Your task to perform on an android device: open a new tab in the chrome app Image 0: 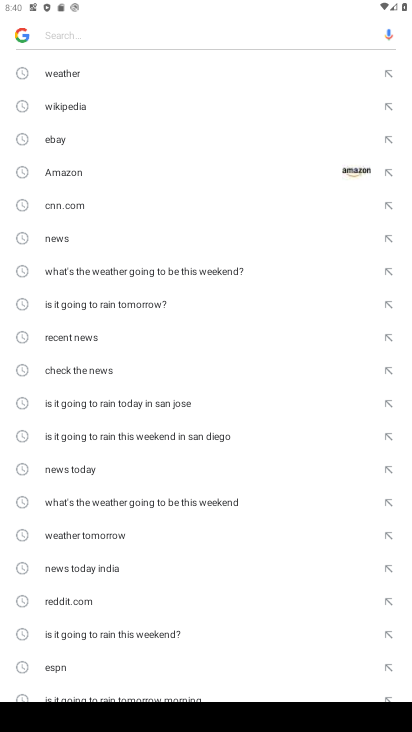
Step 0: press home button
Your task to perform on an android device: open a new tab in the chrome app Image 1: 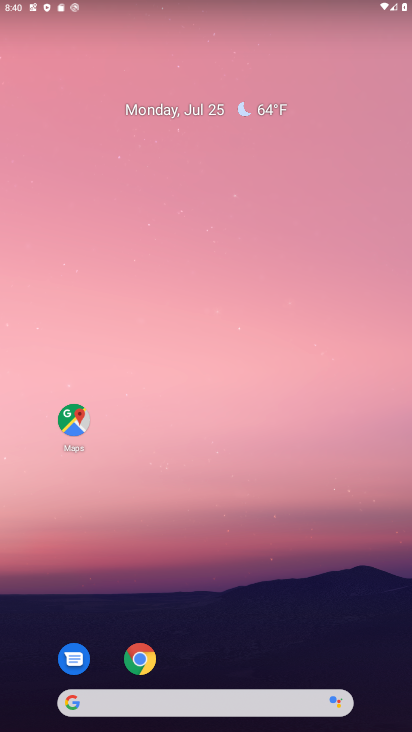
Step 1: drag from (357, 569) to (357, 64)
Your task to perform on an android device: open a new tab in the chrome app Image 2: 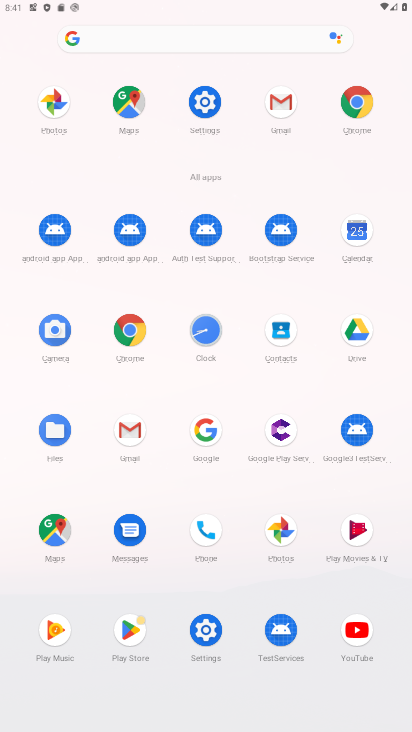
Step 2: click (129, 329)
Your task to perform on an android device: open a new tab in the chrome app Image 3: 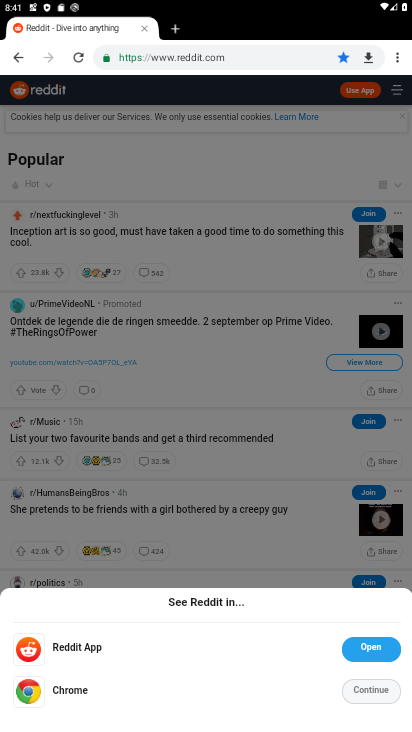
Step 3: click (394, 58)
Your task to perform on an android device: open a new tab in the chrome app Image 4: 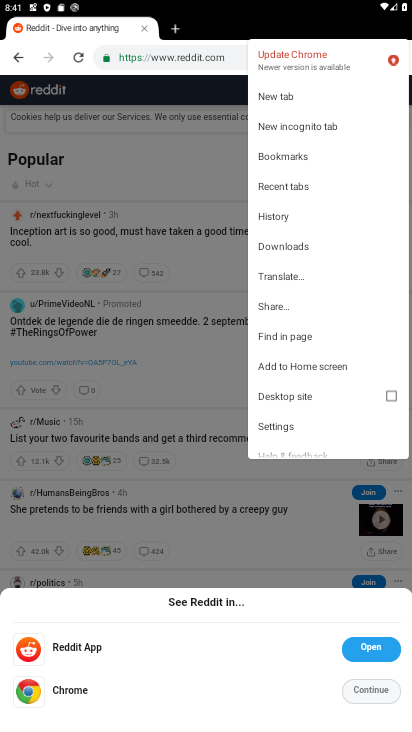
Step 4: drag from (357, 306) to (361, 220)
Your task to perform on an android device: open a new tab in the chrome app Image 5: 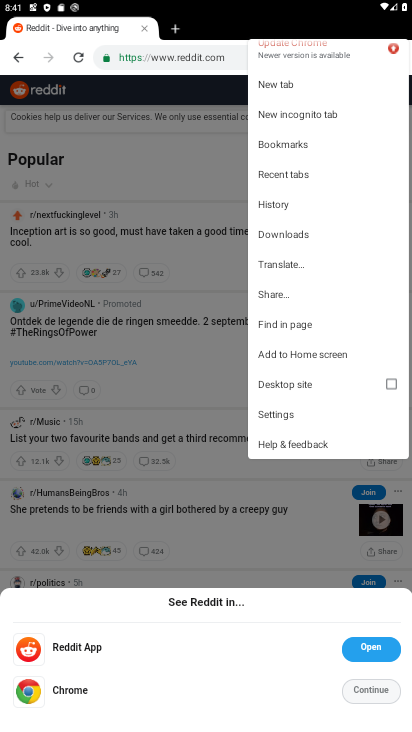
Step 5: click (291, 77)
Your task to perform on an android device: open a new tab in the chrome app Image 6: 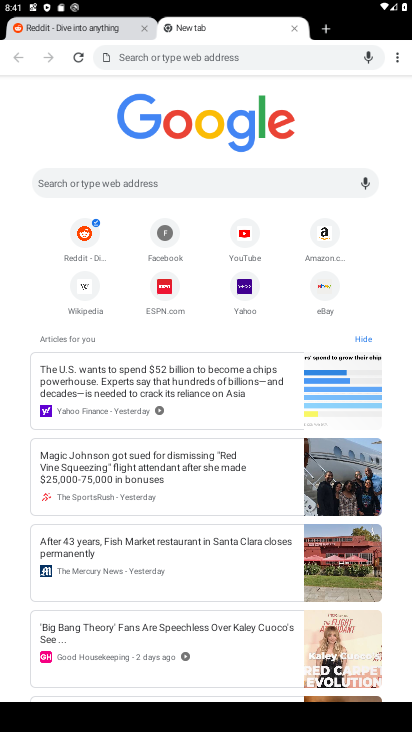
Step 6: task complete